Your task to perform on an android device: set default search engine in the chrome app Image 0: 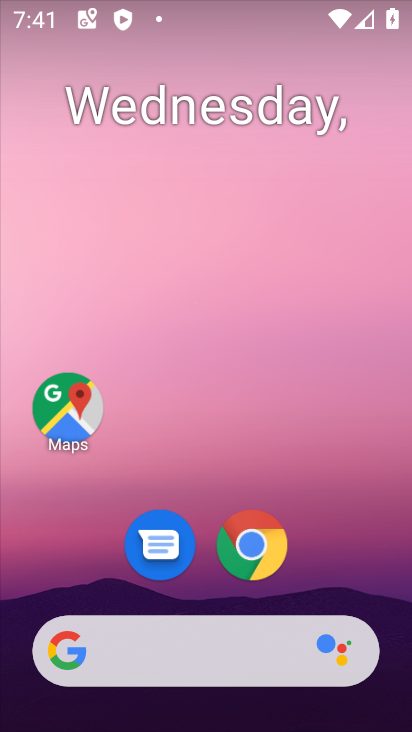
Step 0: click (243, 548)
Your task to perform on an android device: set default search engine in the chrome app Image 1: 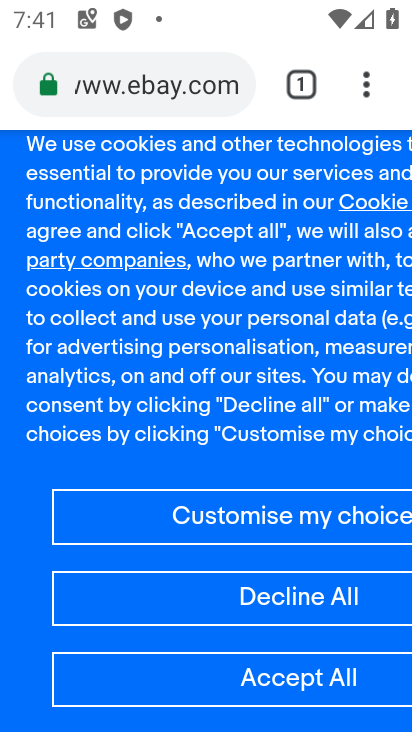
Step 1: click (365, 90)
Your task to perform on an android device: set default search engine in the chrome app Image 2: 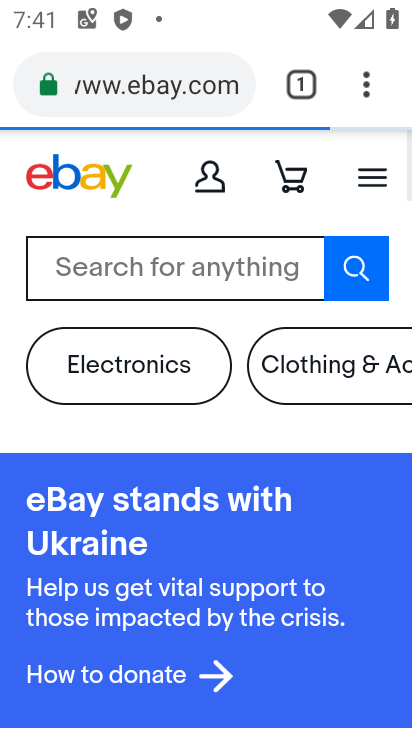
Step 2: click (361, 84)
Your task to perform on an android device: set default search engine in the chrome app Image 3: 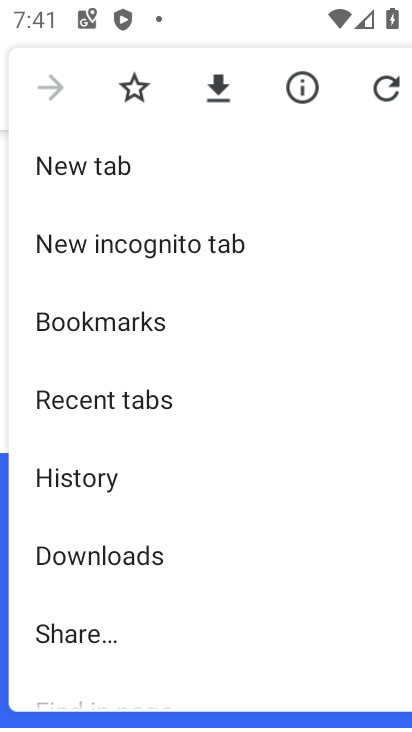
Step 3: drag from (134, 629) to (162, 207)
Your task to perform on an android device: set default search engine in the chrome app Image 4: 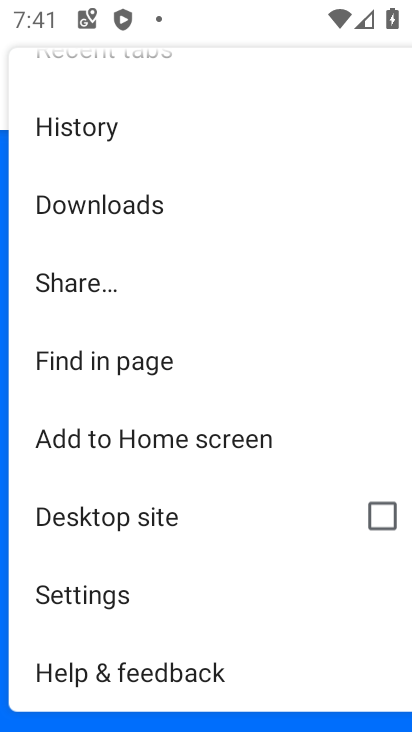
Step 4: click (94, 615)
Your task to perform on an android device: set default search engine in the chrome app Image 5: 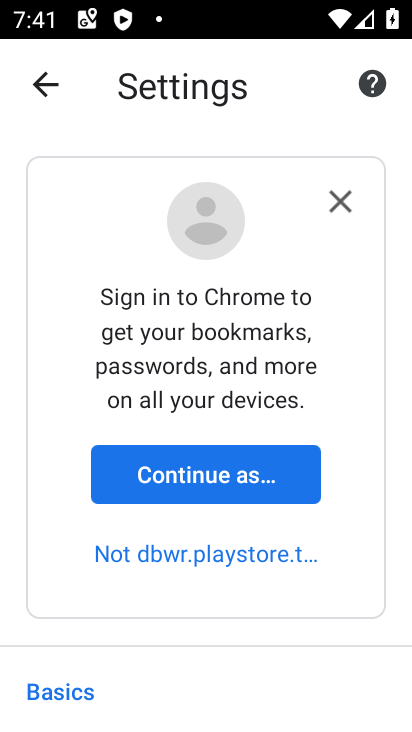
Step 5: click (342, 201)
Your task to perform on an android device: set default search engine in the chrome app Image 6: 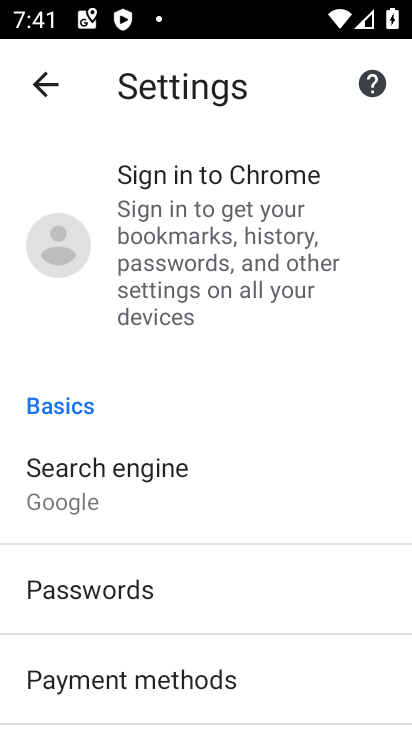
Step 6: drag from (101, 619) to (282, 326)
Your task to perform on an android device: set default search engine in the chrome app Image 7: 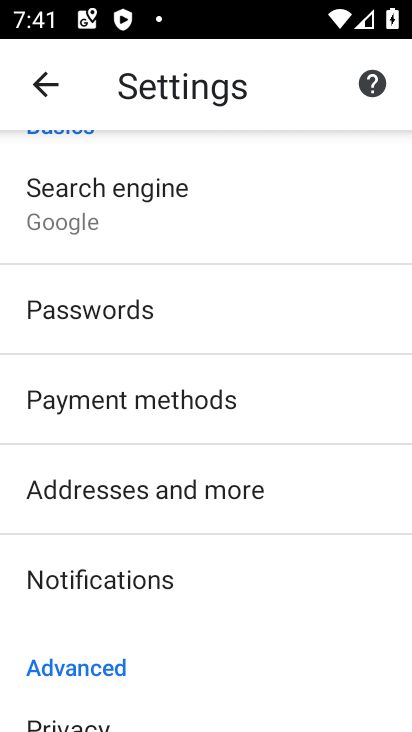
Step 7: drag from (73, 462) to (183, 365)
Your task to perform on an android device: set default search engine in the chrome app Image 8: 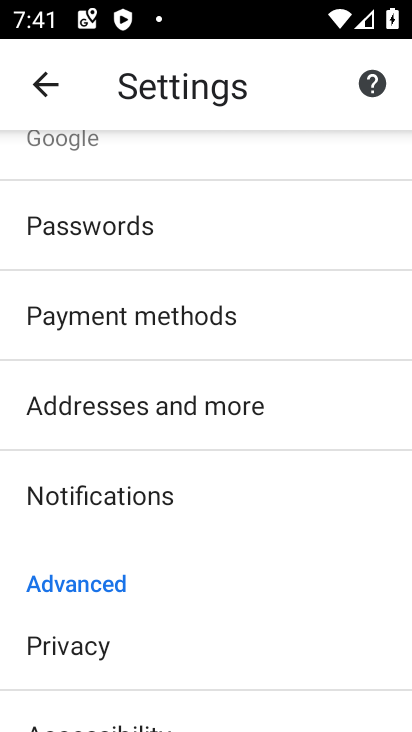
Step 8: drag from (93, 563) to (360, 147)
Your task to perform on an android device: set default search engine in the chrome app Image 9: 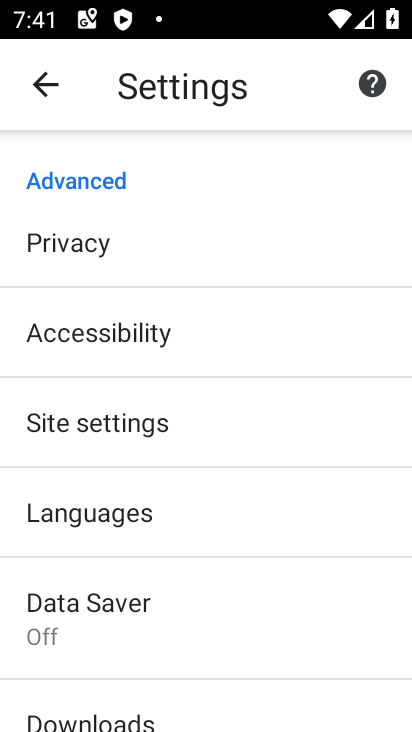
Step 9: click (160, 434)
Your task to perform on an android device: set default search engine in the chrome app Image 10: 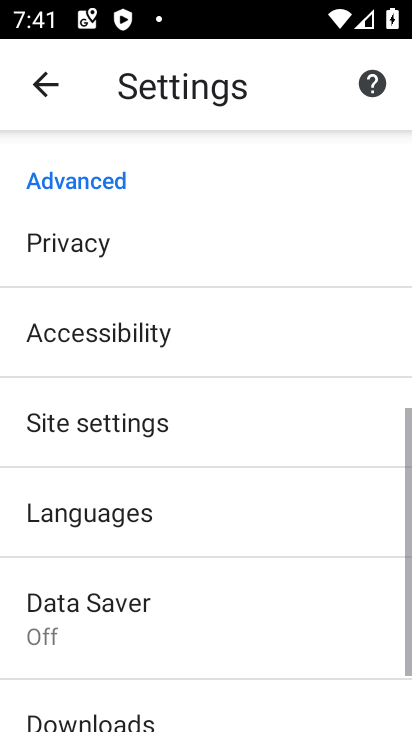
Step 10: click (162, 421)
Your task to perform on an android device: set default search engine in the chrome app Image 11: 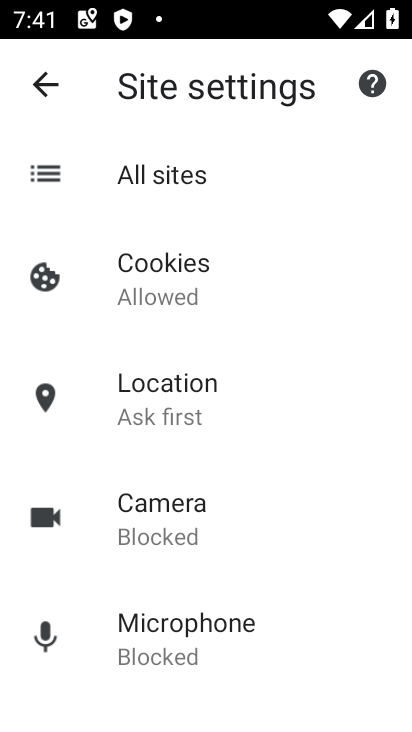
Step 11: task complete